Your task to perform on an android device: Go to wifi settings Image 0: 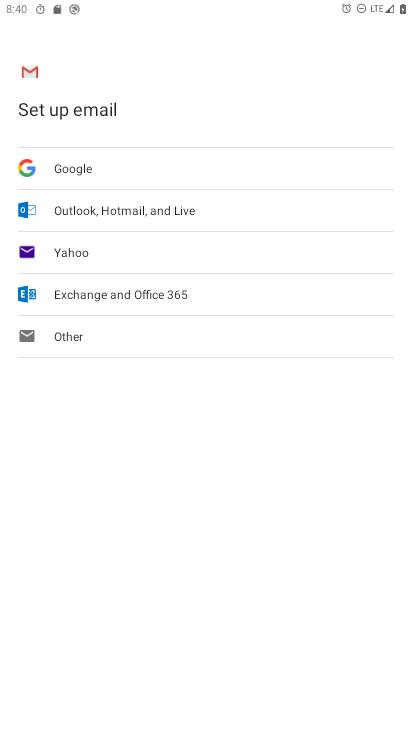
Step 0: press home button
Your task to perform on an android device: Go to wifi settings Image 1: 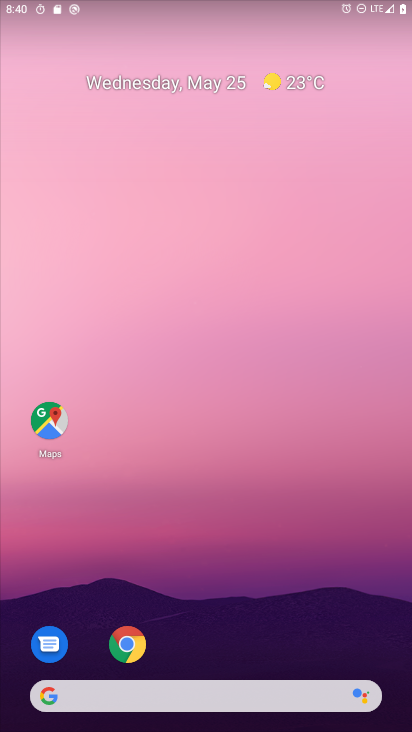
Step 1: drag from (370, 620) to (295, 157)
Your task to perform on an android device: Go to wifi settings Image 2: 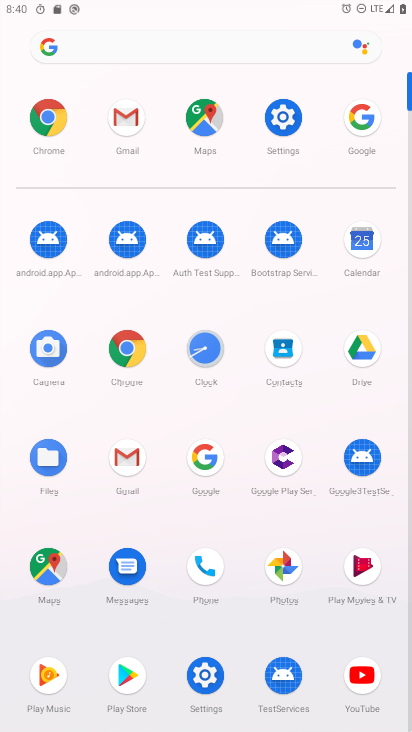
Step 2: click (204, 681)
Your task to perform on an android device: Go to wifi settings Image 3: 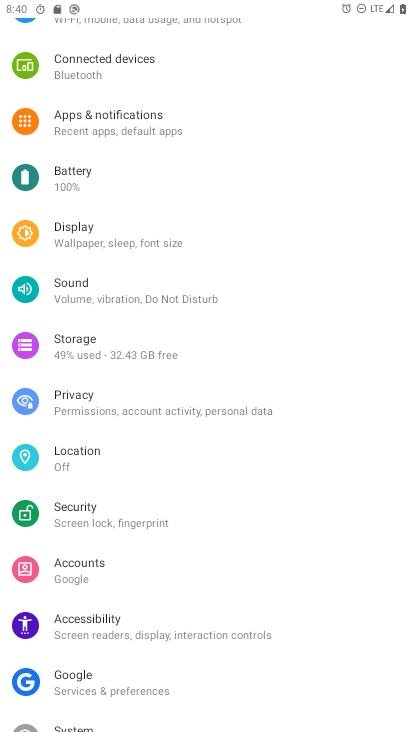
Step 3: drag from (137, 113) to (209, 657)
Your task to perform on an android device: Go to wifi settings Image 4: 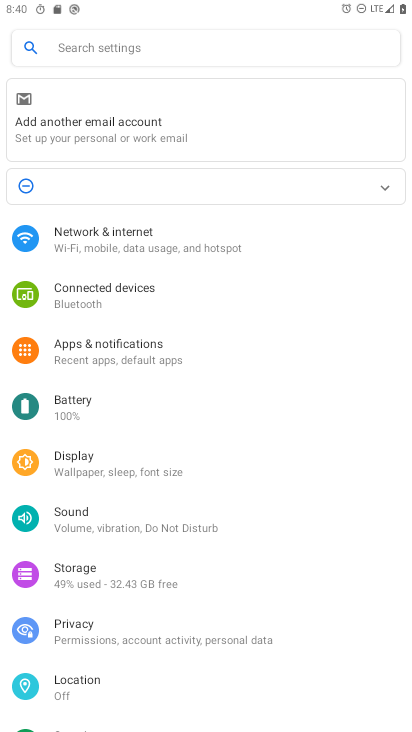
Step 4: click (153, 247)
Your task to perform on an android device: Go to wifi settings Image 5: 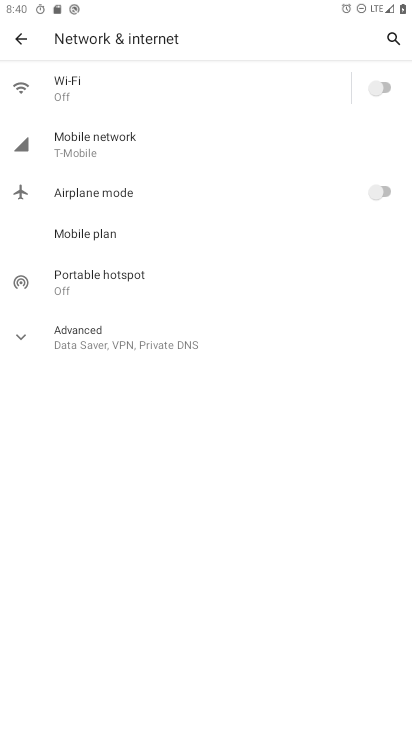
Step 5: click (164, 96)
Your task to perform on an android device: Go to wifi settings Image 6: 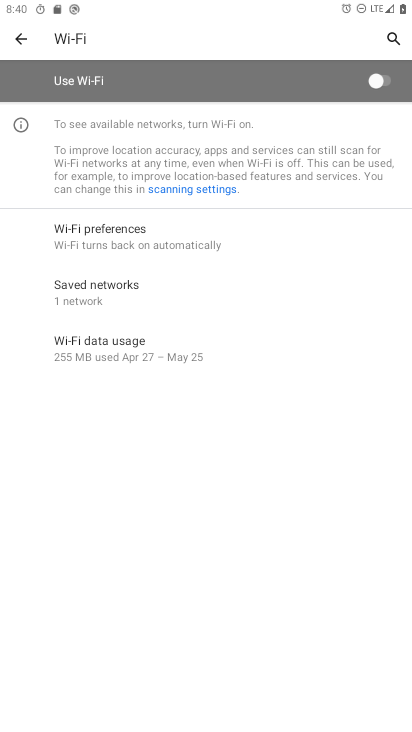
Step 6: task complete